Your task to perform on an android device: refresh tabs in the chrome app Image 0: 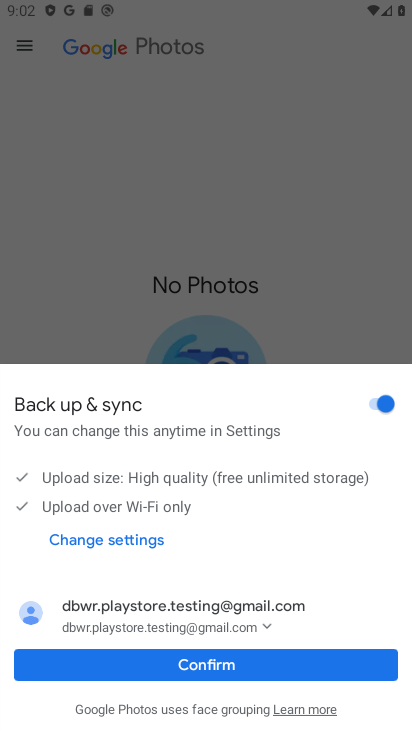
Step 0: press home button
Your task to perform on an android device: refresh tabs in the chrome app Image 1: 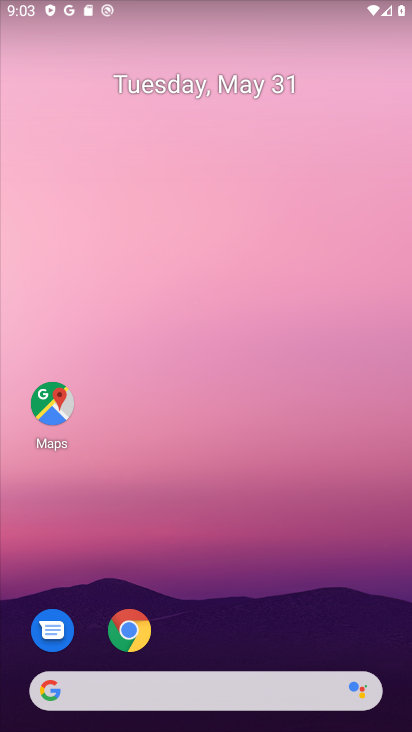
Step 1: click (139, 634)
Your task to perform on an android device: refresh tabs in the chrome app Image 2: 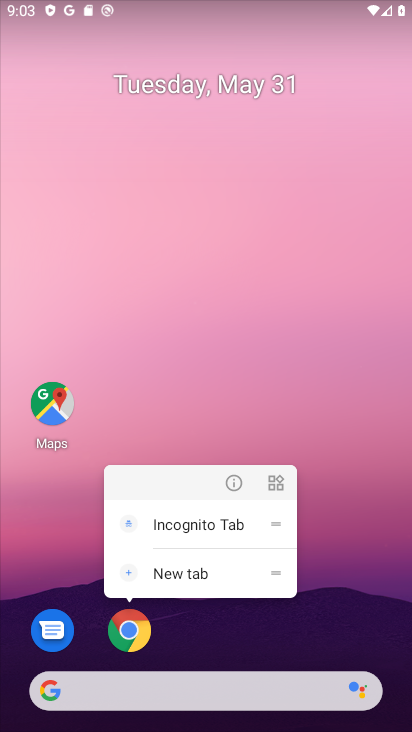
Step 2: click (175, 570)
Your task to perform on an android device: refresh tabs in the chrome app Image 3: 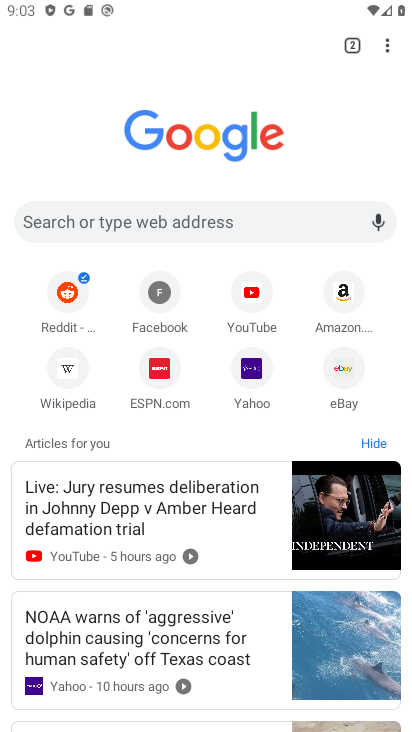
Step 3: click (392, 23)
Your task to perform on an android device: refresh tabs in the chrome app Image 4: 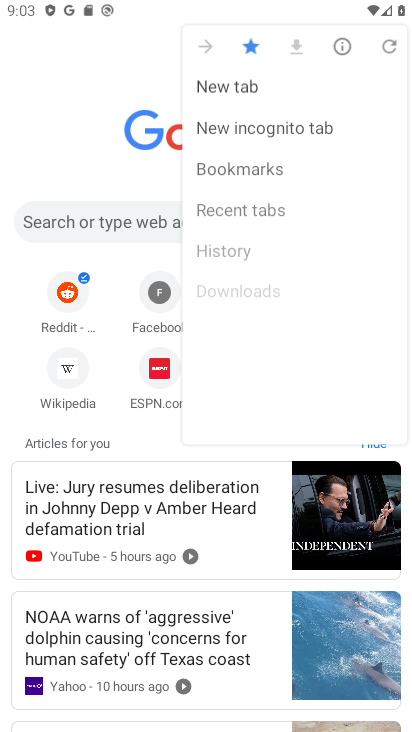
Step 4: click (382, 39)
Your task to perform on an android device: refresh tabs in the chrome app Image 5: 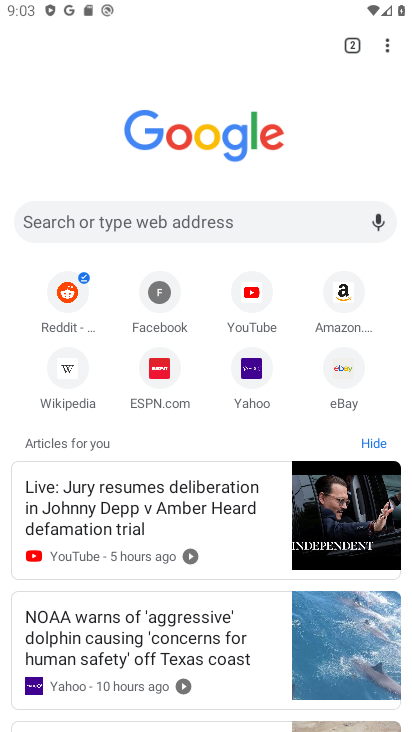
Step 5: click (389, 50)
Your task to perform on an android device: refresh tabs in the chrome app Image 6: 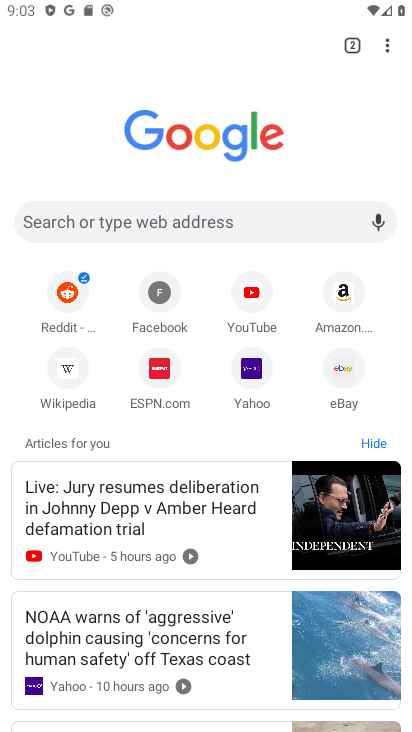
Step 6: click (388, 43)
Your task to perform on an android device: refresh tabs in the chrome app Image 7: 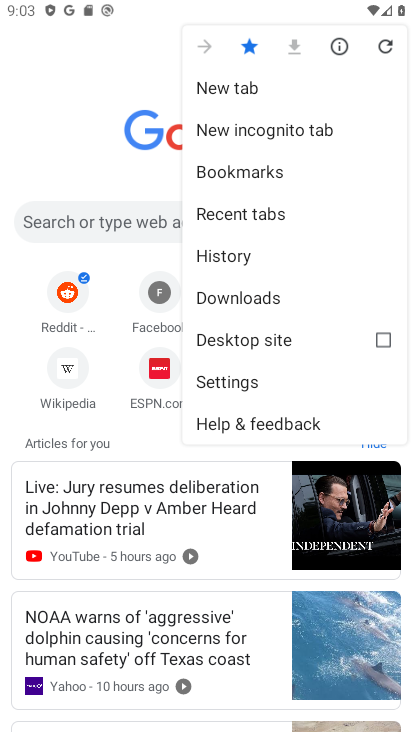
Step 7: click (377, 54)
Your task to perform on an android device: refresh tabs in the chrome app Image 8: 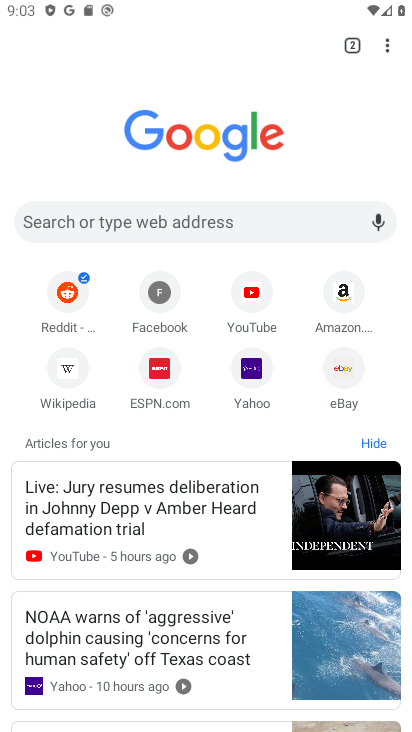
Step 8: task complete